Your task to perform on an android device: toggle notification dots Image 0: 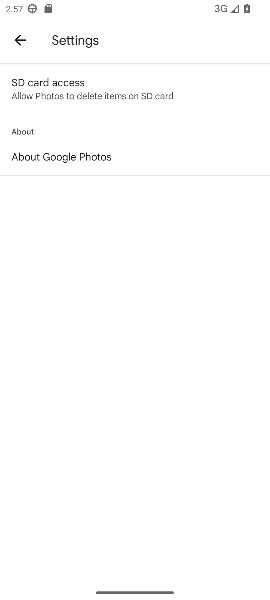
Step 0: press home button
Your task to perform on an android device: toggle notification dots Image 1: 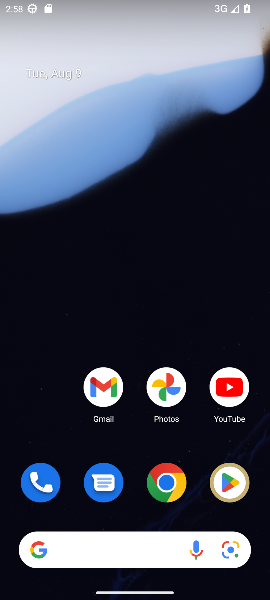
Step 1: drag from (136, 458) to (151, 164)
Your task to perform on an android device: toggle notification dots Image 2: 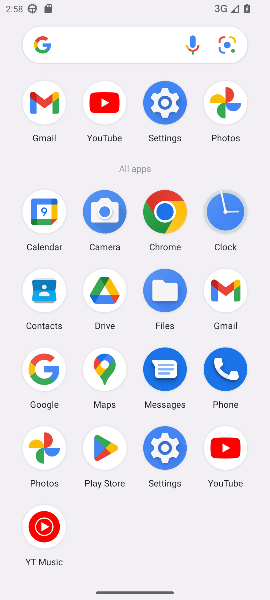
Step 2: click (154, 100)
Your task to perform on an android device: toggle notification dots Image 3: 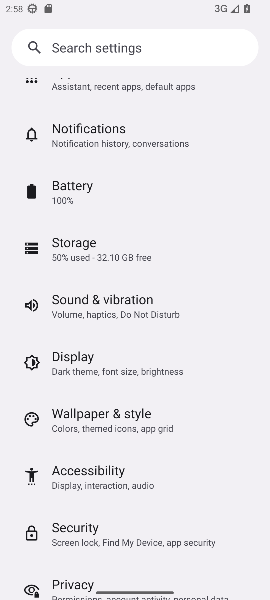
Step 3: click (126, 149)
Your task to perform on an android device: toggle notification dots Image 4: 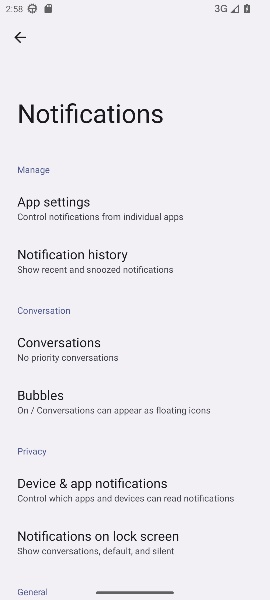
Step 4: drag from (136, 481) to (139, 213)
Your task to perform on an android device: toggle notification dots Image 5: 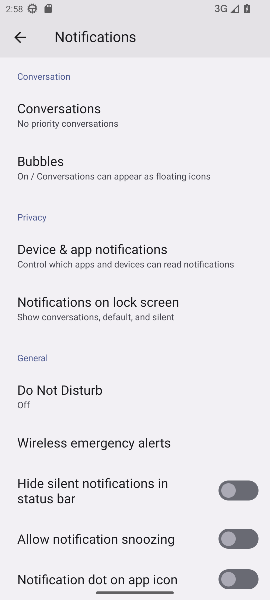
Step 5: click (239, 575)
Your task to perform on an android device: toggle notification dots Image 6: 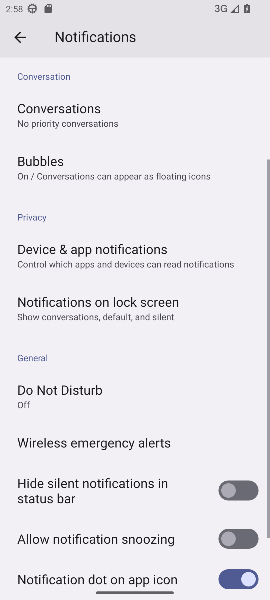
Step 6: task complete